Your task to perform on an android device: Do I have any events today? Image 0: 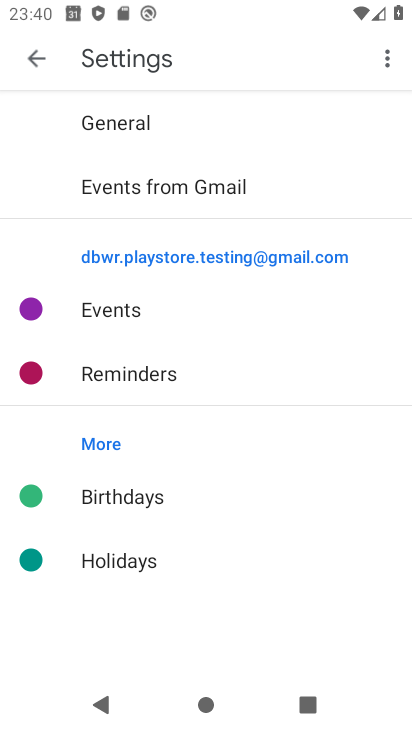
Step 0: click (29, 69)
Your task to perform on an android device: Do I have any events today? Image 1: 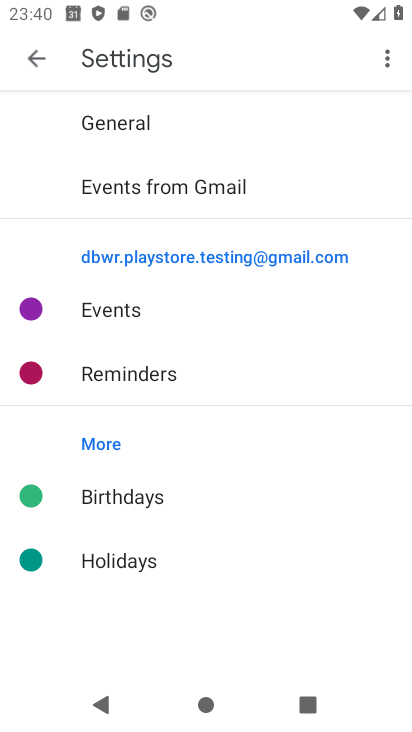
Step 1: click (29, 69)
Your task to perform on an android device: Do I have any events today? Image 2: 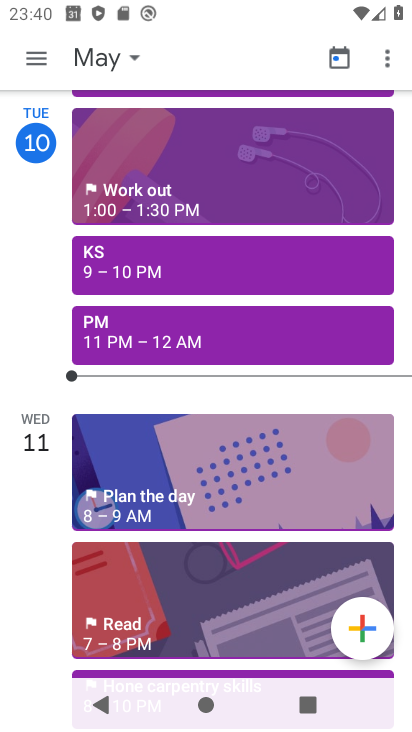
Step 2: click (134, 63)
Your task to perform on an android device: Do I have any events today? Image 3: 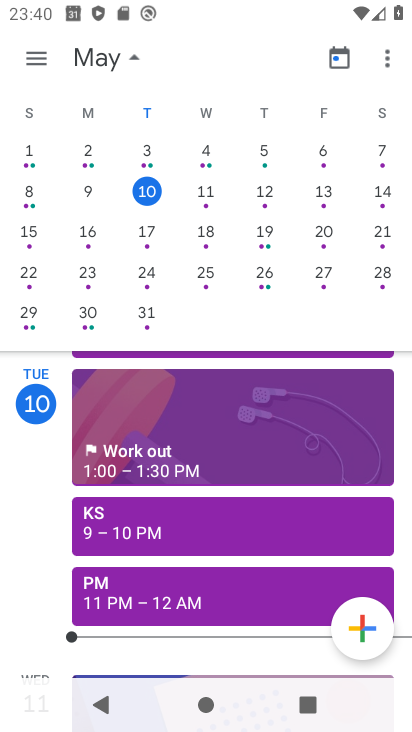
Step 3: task complete